Your task to perform on an android device: Open Wikipedia Image 0: 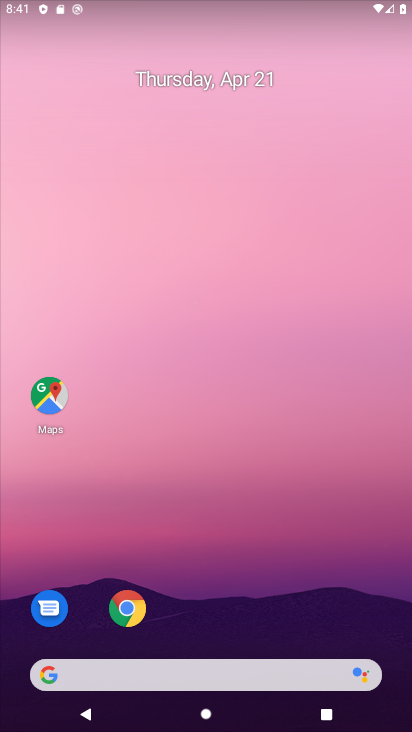
Step 0: drag from (264, 602) to (216, 243)
Your task to perform on an android device: Open Wikipedia Image 1: 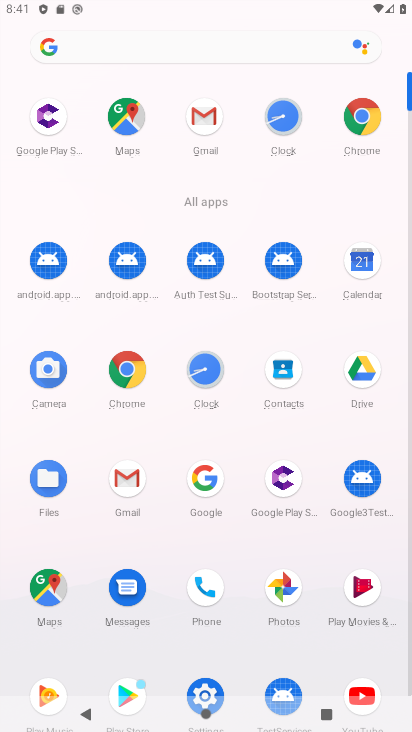
Step 1: click (363, 117)
Your task to perform on an android device: Open Wikipedia Image 2: 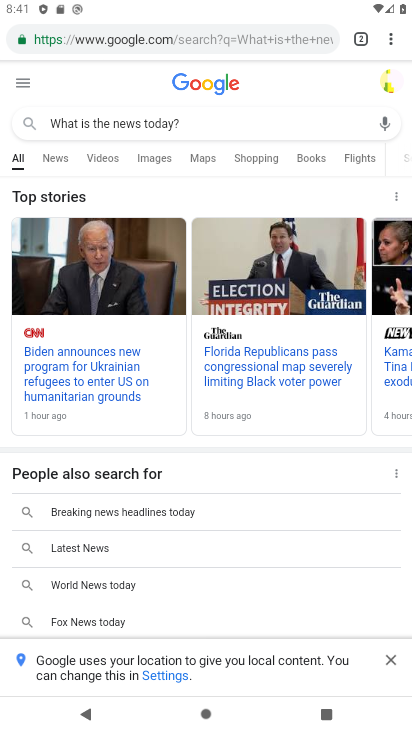
Step 2: click (368, 35)
Your task to perform on an android device: Open Wikipedia Image 3: 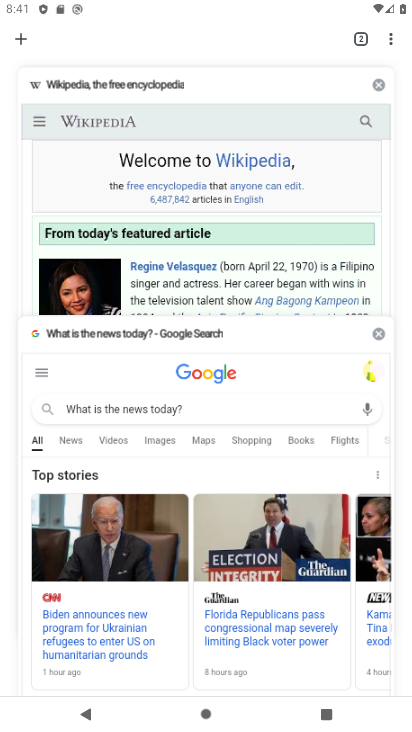
Step 3: click (274, 155)
Your task to perform on an android device: Open Wikipedia Image 4: 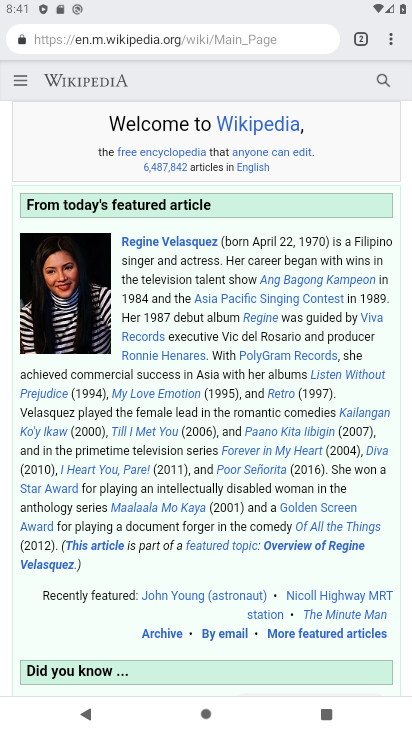
Step 4: task complete